Your task to perform on an android device: Go to display settings Image 0: 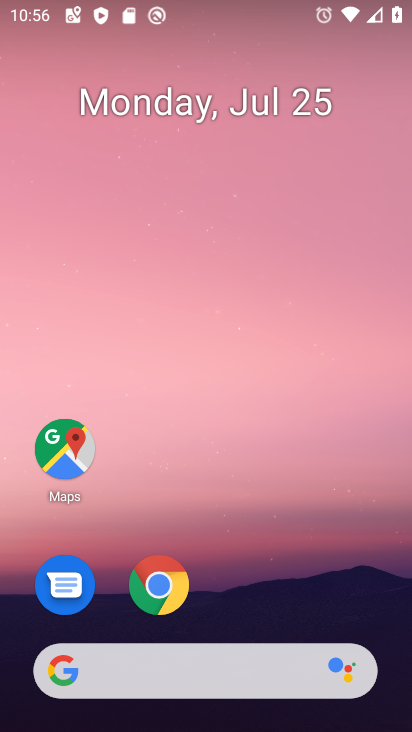
Step 0: drag from (222, 644) to (210, 39)
Your task to perform on an android device: Go to display settings Image 1: 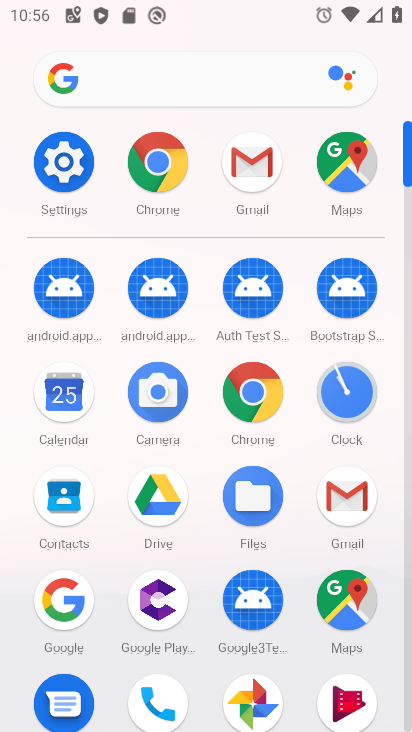
Step 1: click (82, 161)
Your task to perform on an android device: Go to display settings Image 2: 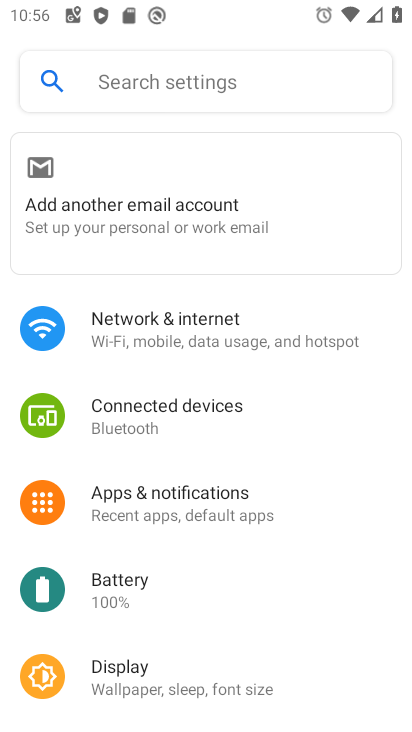
Step 2: click (164, 678)
Your task to perform on an android device: Go to display settings Image 3: 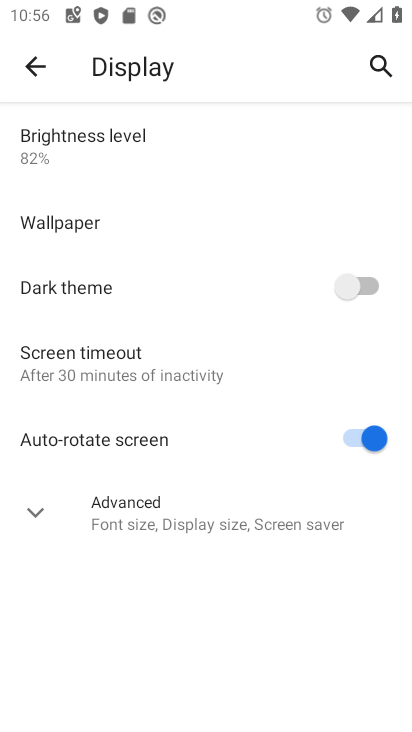
Step 3: click (204, 529)
Your task to perform on an android device: Go to display settings Image 4: 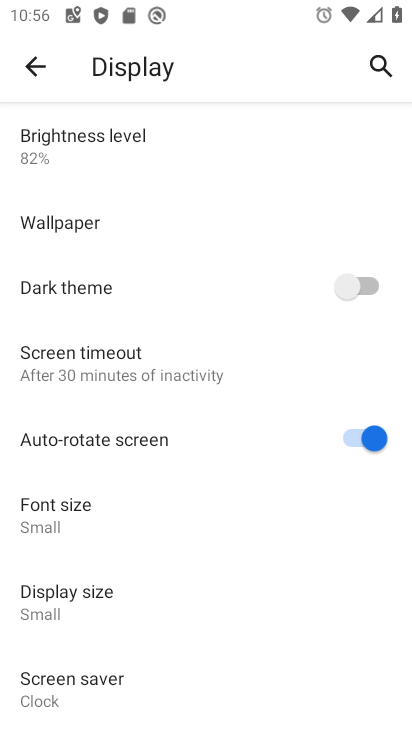
Step 4: task complete